Your task to perform on an android device: toggle location history Image 0: 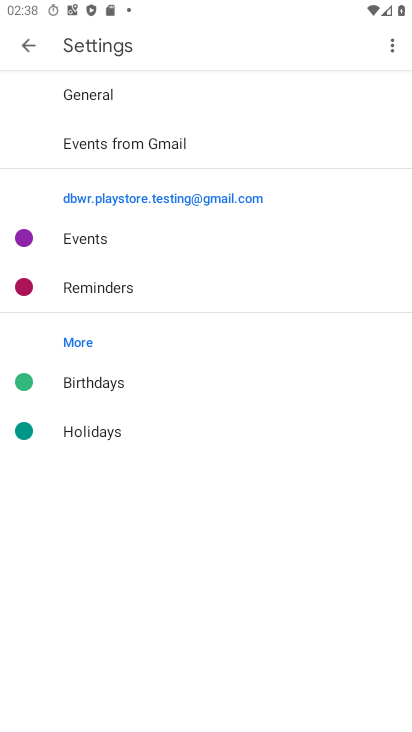
Step 0: press home button
Your task to perform on an android device: toggle location history Image 1: 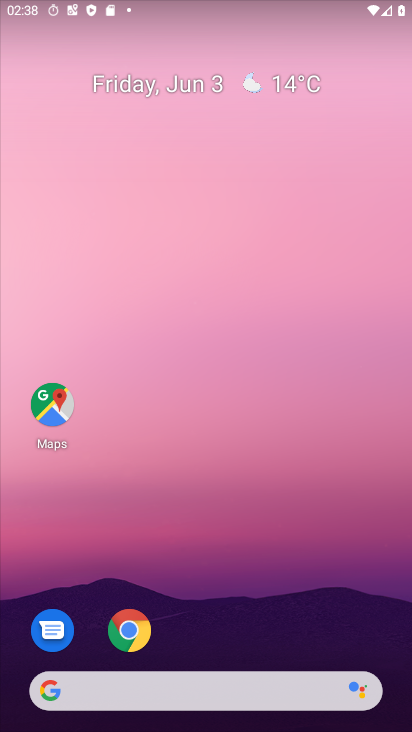
Step 1: drag from (0, 470) to (409, 478)
Your task to perform on an android device: toggle location history Image 2: 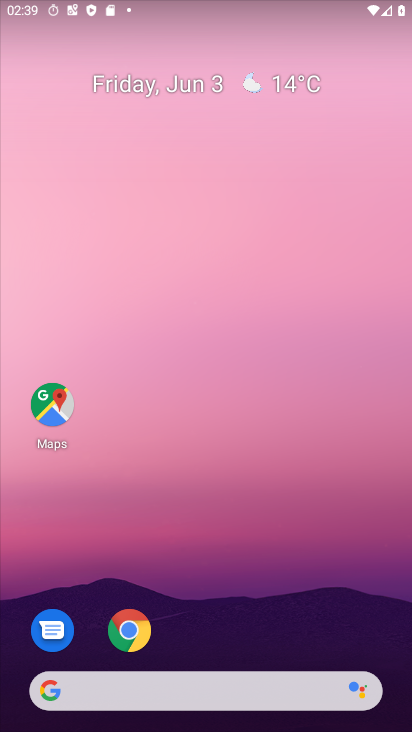
Step 2: drag from (1, 318) to (359, 523)
Your task to perform on an android device: toggle location history Image 3: 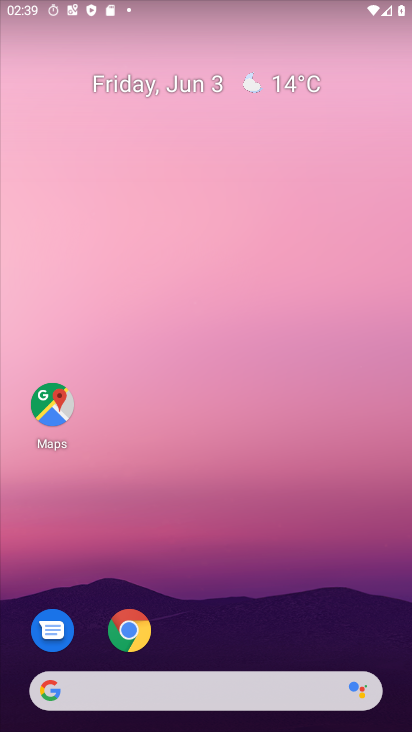
Step 3: drag from (8, 321) to (405, 343)
Your task to perform on an android device: toggle location history Image 4: 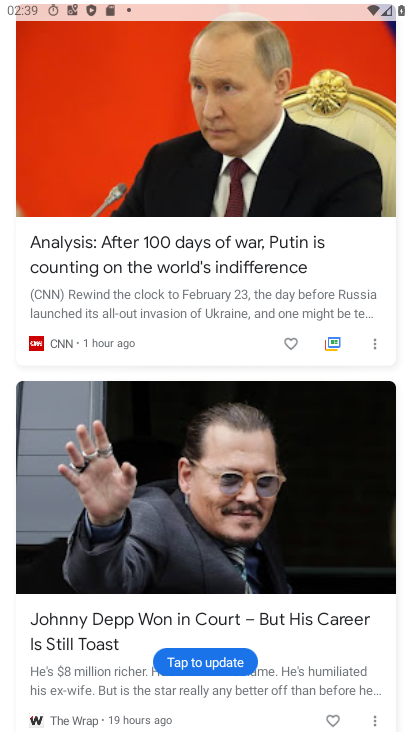
Step 4: drag from (310, 163) to (336, 605)
Your task to perform on an android device: toggle location history Image 5: 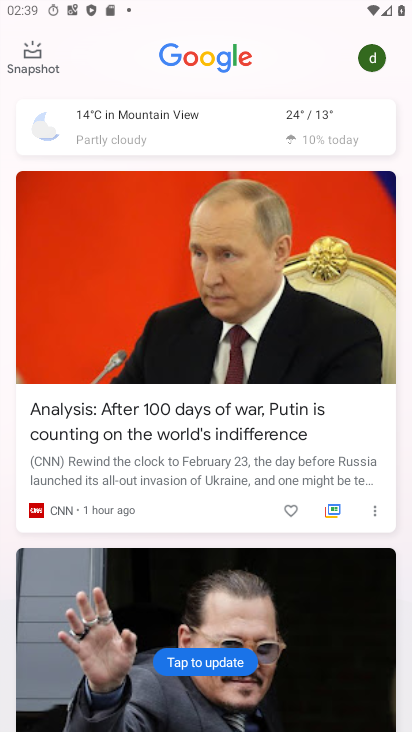
Step 5: press home button
Your task to perform on an android device: toggle location history Image 6: 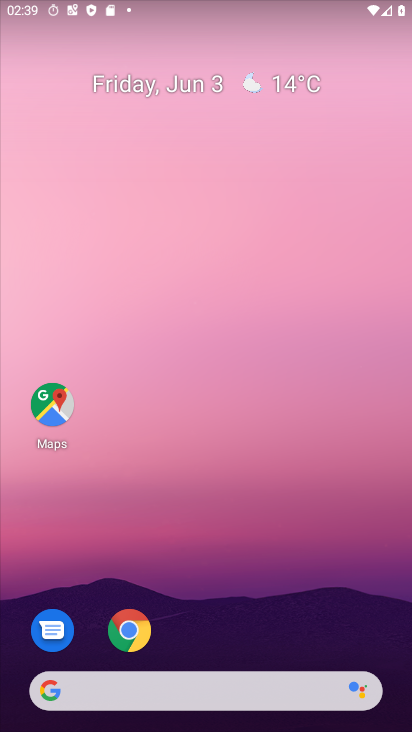
Step 6: drag from (398, 712) to (366, 77)
Your task to perform on an android device: toggle location history Image 7: 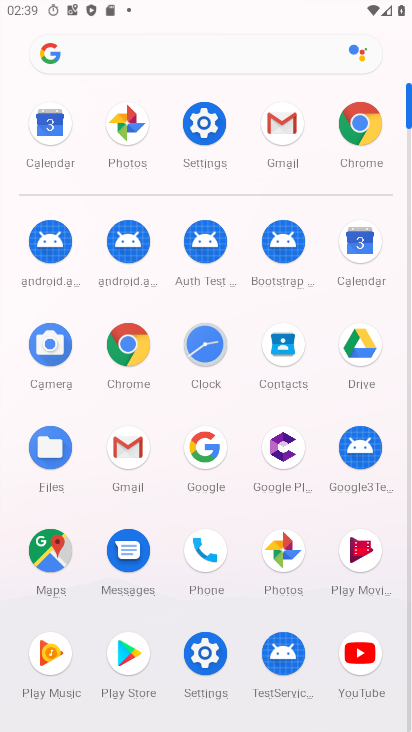
Step 7: click (204, 120)
Your task to perform on an android device: toggle location history Image 8: 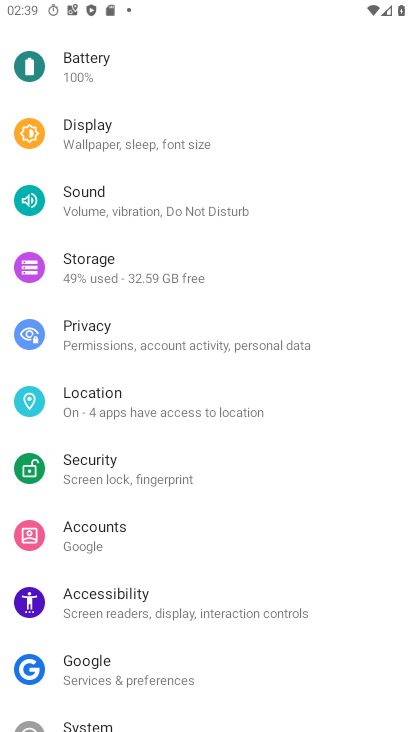
Step 8: click (89, 401)
Your task to perform on an android device: toggle location history Image 9: 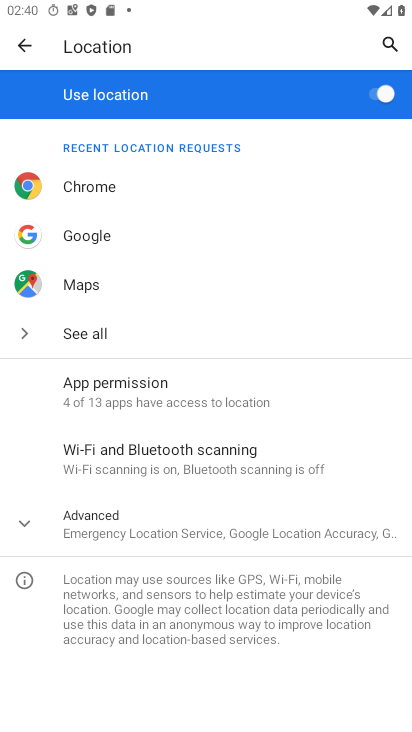
Step 9: click (29, 522)
Your task to perform on an android device: toggle location history Image 10: 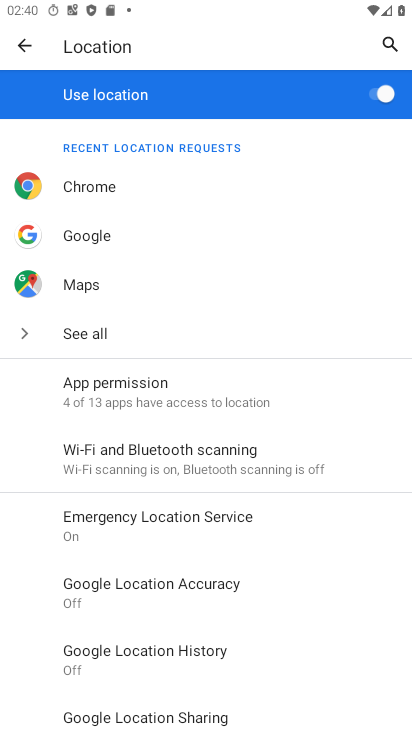
Step 10: click (125, 657)
Your task to perform on an android device: toggle location history Image 11: 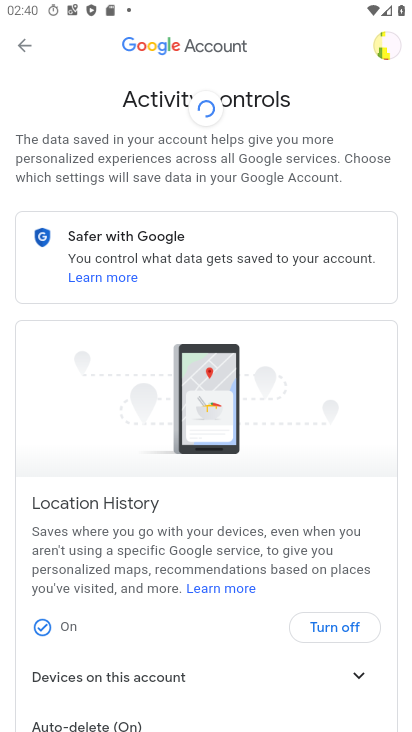
Step 11: click (310, 628)
Your task to perform on an android device: toggle location history Image 12: 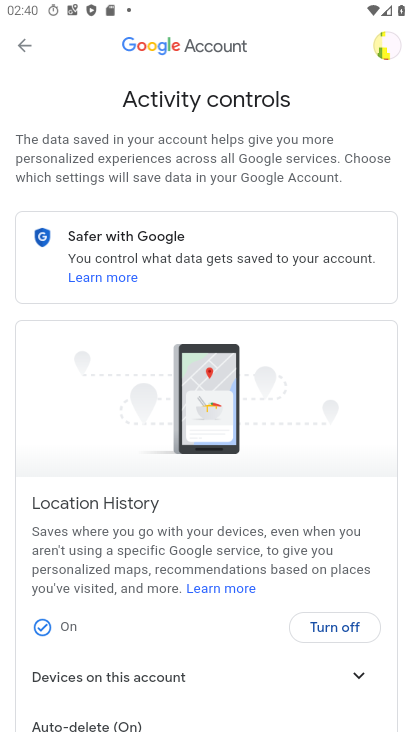
Step 12: click (309, 618)
Your task to perform on an android device: toggle location history Image 13: 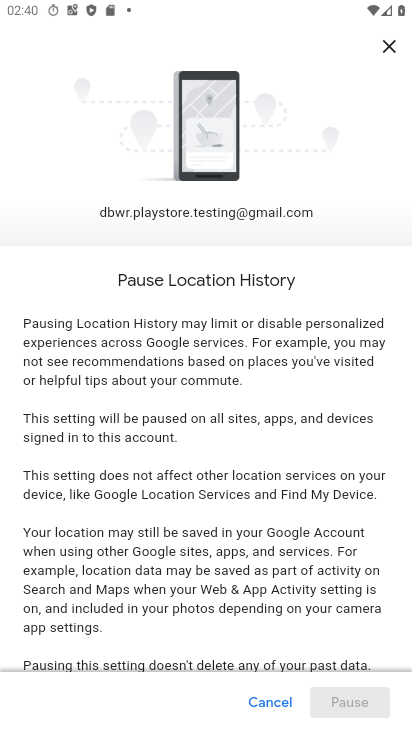
Step 13: drag from (279, 629) to (284, 267)
Your task to perform on an android device: toggle location history Image 14: 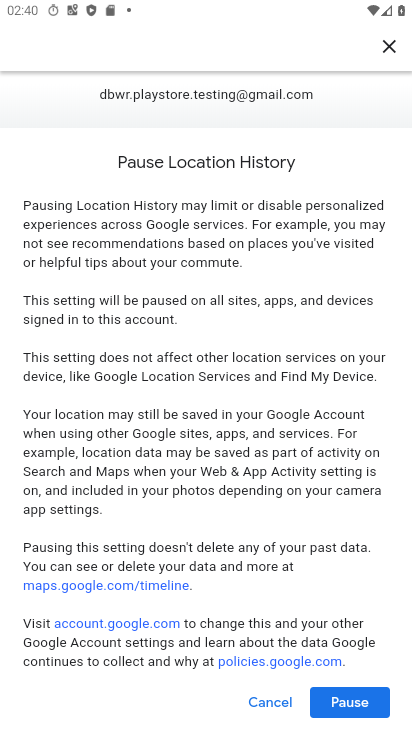
Step 14: click (349, 695)
Your task to perform on an android device: toggle location history Image 15: 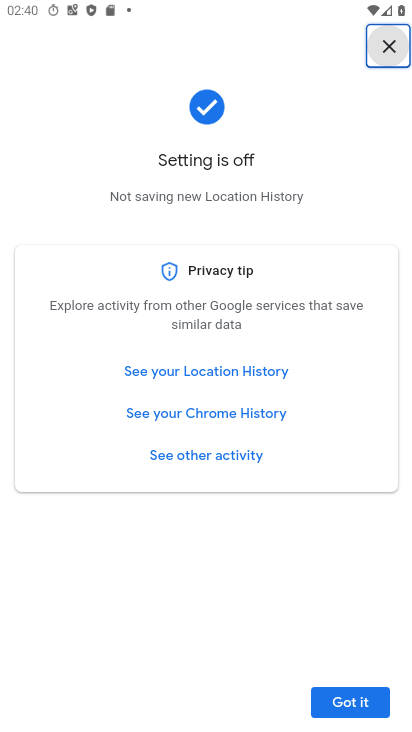
Step 15: click (346, 704)
Your task to perform on an android device: toggle location history Image 16: 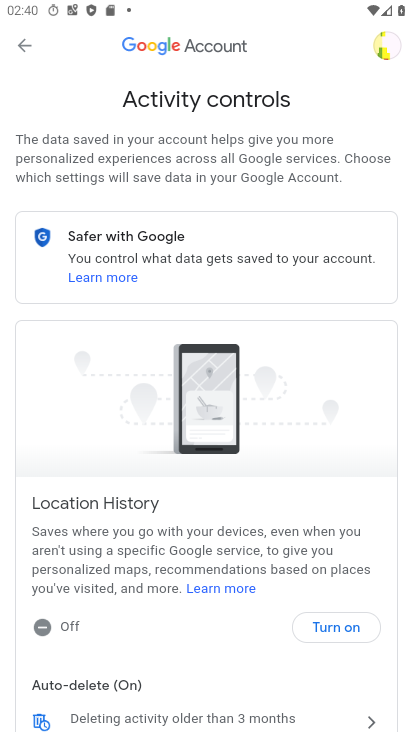
Step 16: click (343, 629)
Your task to perform on an android device: toggle location history Image 17: 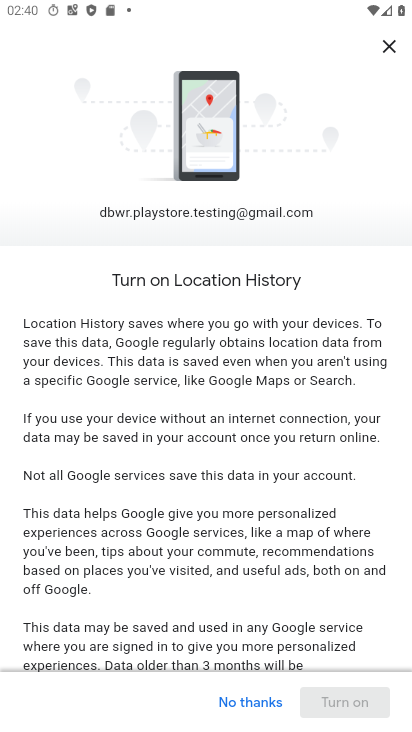
Step 17: drag from (321, 636) to (288, 306)
Your task to perform on an android device: toggle location history Image 18: 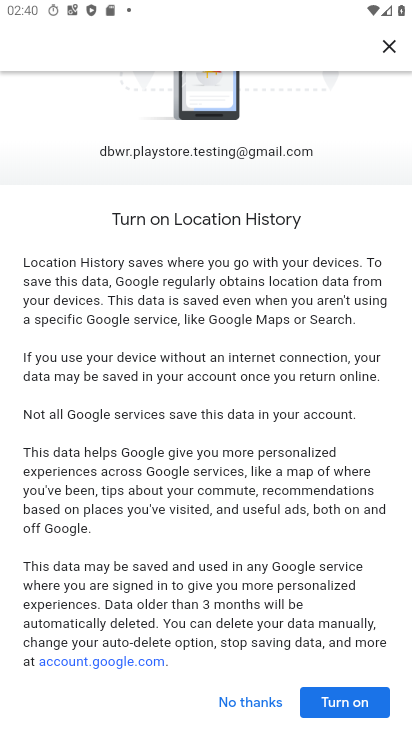
Step 18: click (334, 699)
Your task to perform on an android device: toggle location history Image 19: 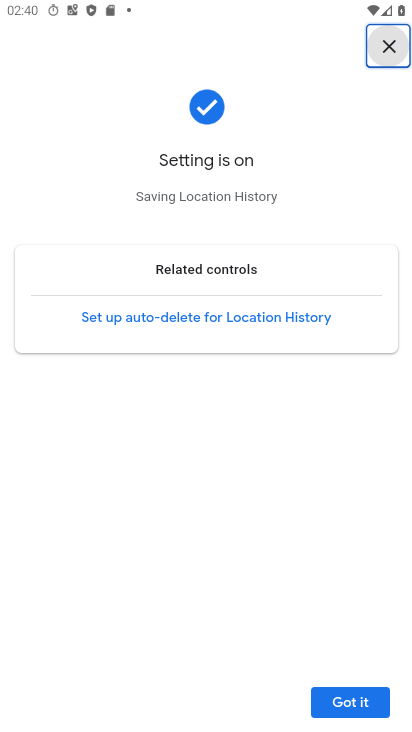
Step 19: click (359, 683)
Your task to perform on an android device: toggle location history Image 20: 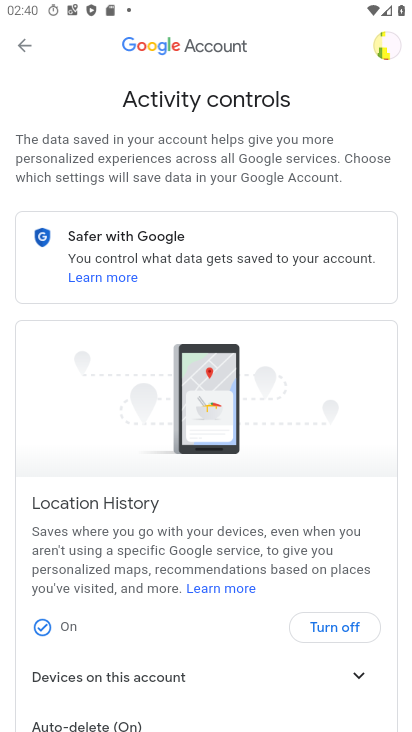
Step 20: task complete